Your task to perform on an android device: Search for Italian restaurants on Maps Image 0: 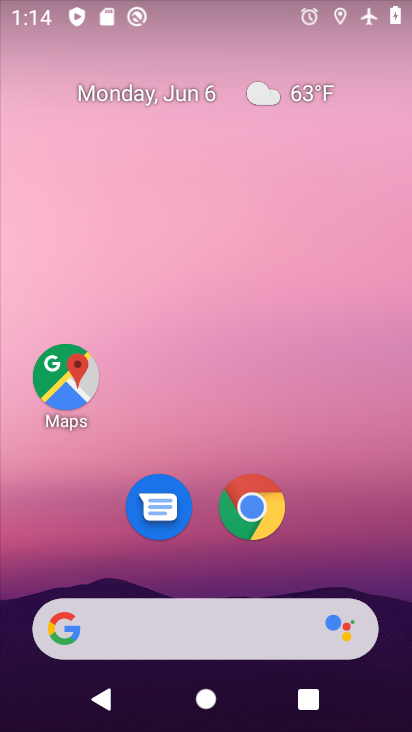
Step 0: click (71, 375)
Your task to perform on an android device: Search for Italian restaurants on Maps Image 1: 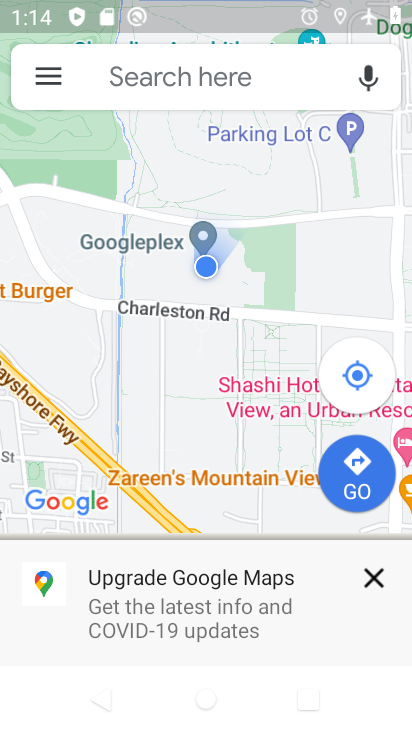
Step 1: click (182, 70)
Your task to perform on an android device: Search for Italian restaurants on Maps Image 2: 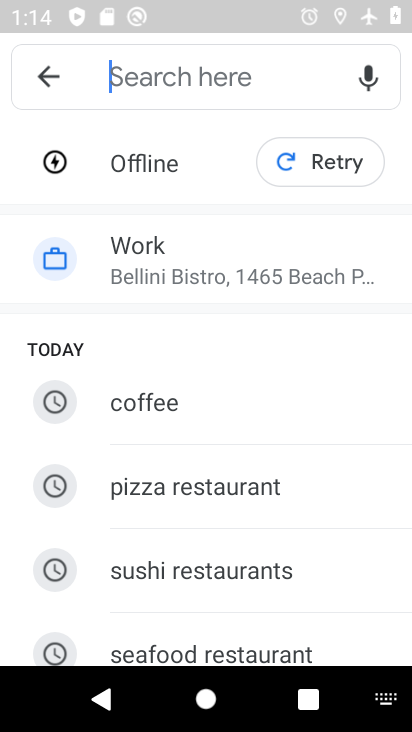
Step 2: drag from (225, 563) to (264, 214)
Your task to perform on an android device: Search for Italian restaurants on Maps Image 3: 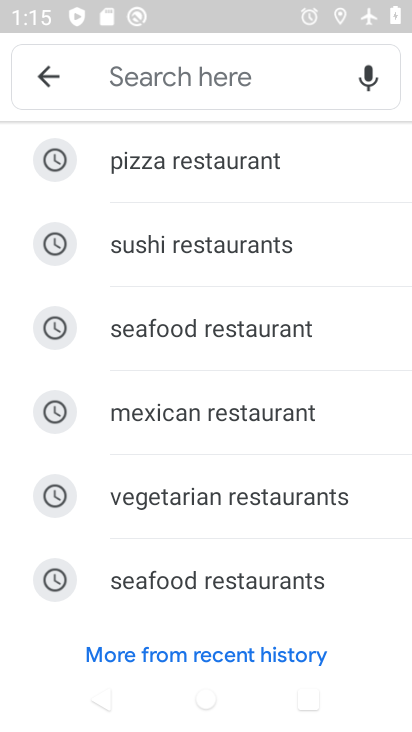
Step 3: click (205, 71)
Your task to perform on an android device: Search for Italian restaurants on Maps Image 4: 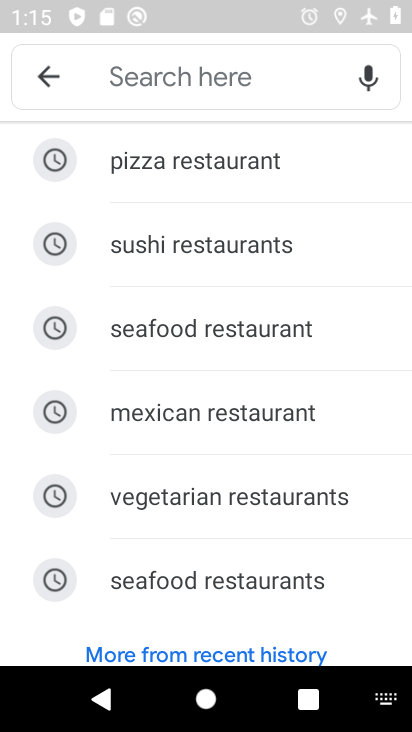
Step 4: type "italian restaurants"
Your task to perform on an android device: Search for Italian restaurants on Maps Image 5: 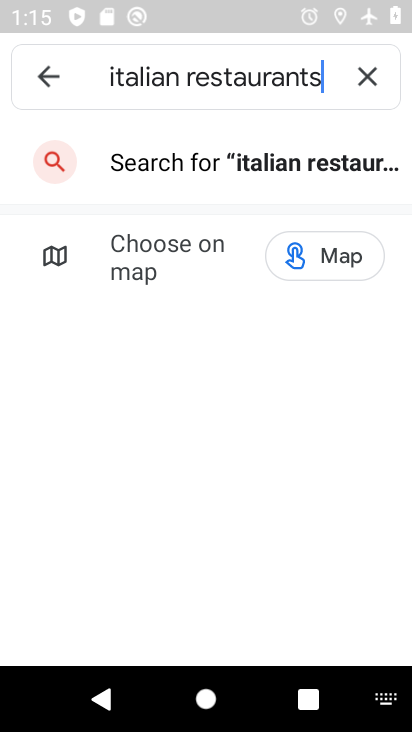
Step 5: click (257, 159)
Your task to perform on an android device: Search for Italian restaurants on Maps Image 6: 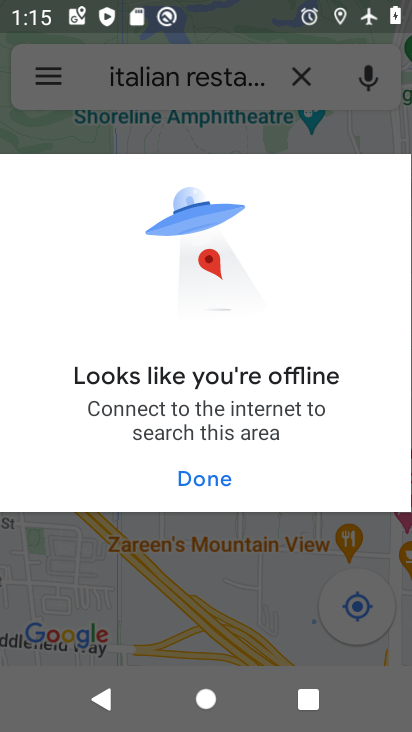
Step 6: task complete